Your task to perform on an android device: Check the news Image 0: 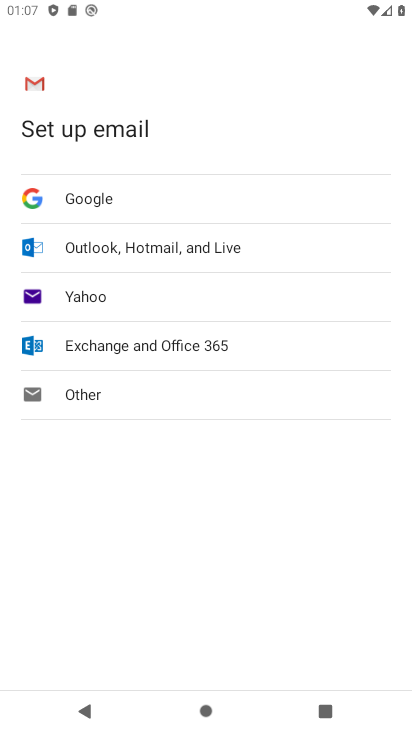
Step 0: press home button
Your task to perform on an android device: Check the news Image 1: 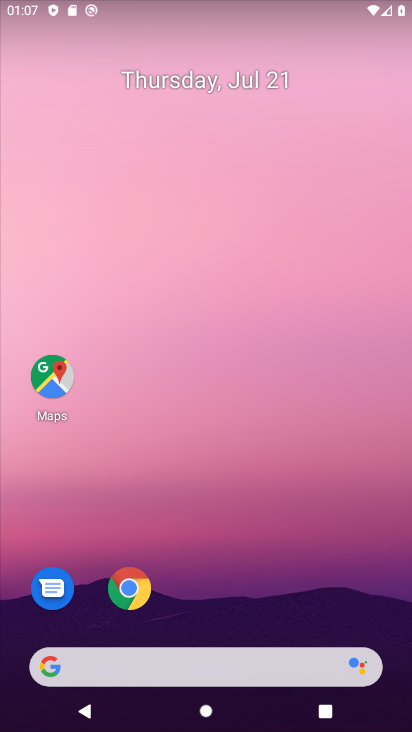
Step 1: drag from (11, 295) to (309, 272)
Your task to perform on an android device: Check the news Image 2: 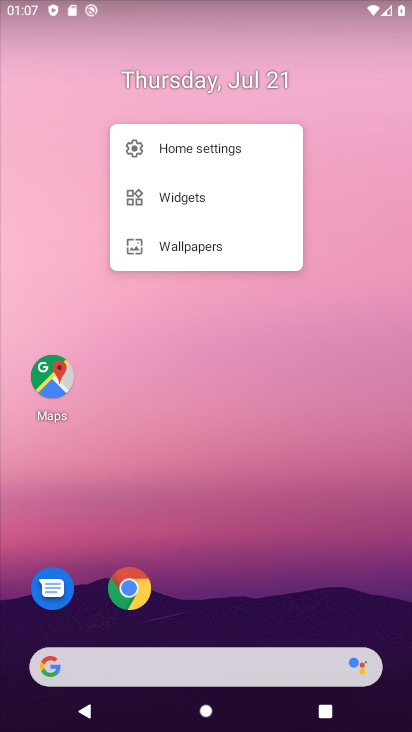
Step 2: click (9, 301)
Your task to perform on an android device: Check the news Image 3: 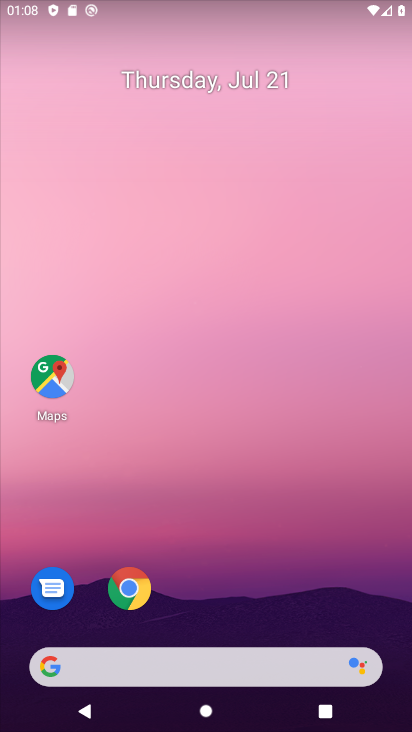
Step 3: task complete